Your task to perform on an android device: Open ESPN.com Image 0: 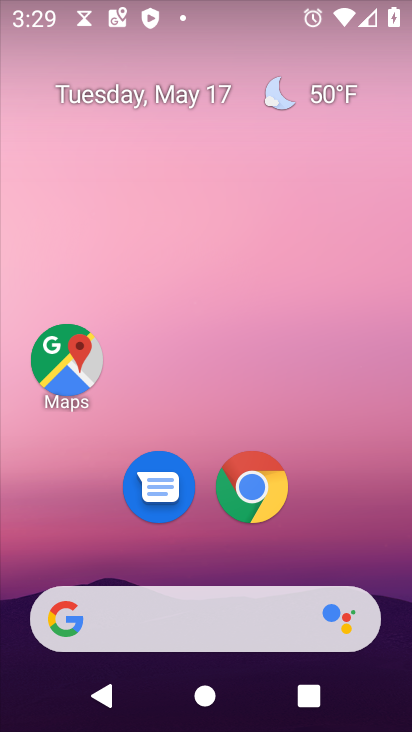
Step 0: click (250, 485)
Your task to perform on an android device: Open ESPN.com Image 1: 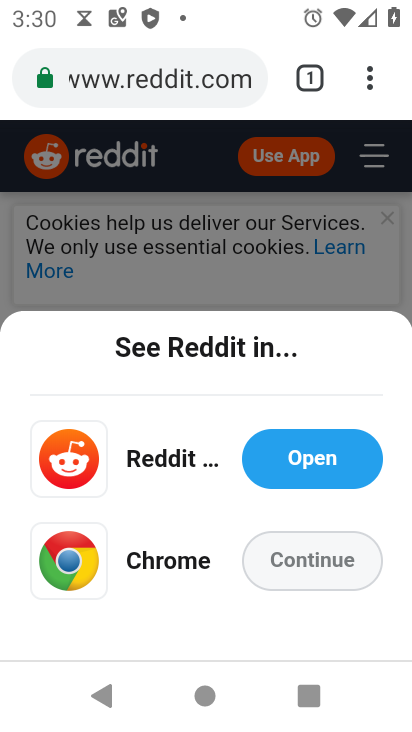
Step 1: click (153, 68)
Your task to perform on an android device: Open ESPN.com Image 2: 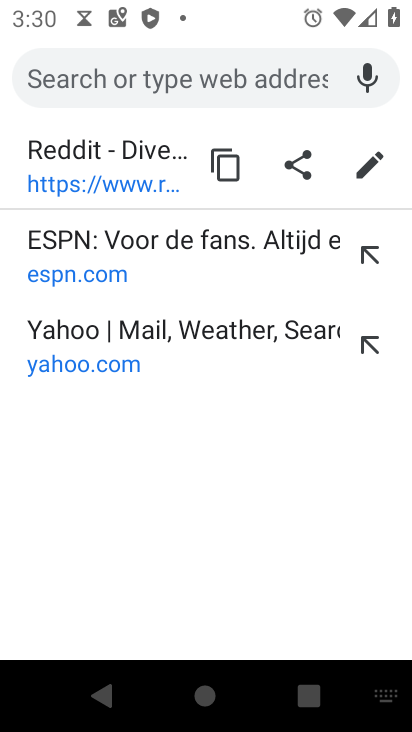
Step 2: type "espn.com"
Your task to perform on an android device: Open ESPN.com Image 3: 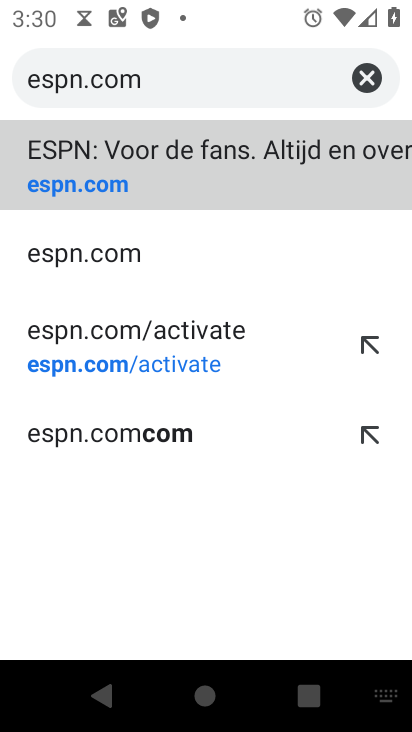
Step 3: click (96, 159)
Your task to perform on an android device: Open ESPN.com Image 4: 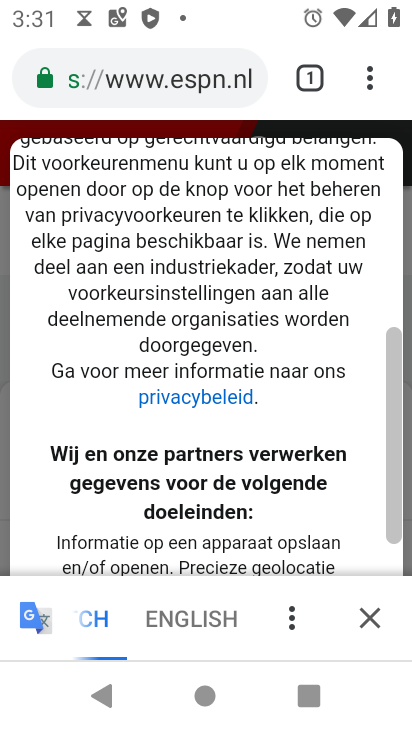
Step 4: task complete